Your task to perform on an android device: change the clock display to show seconds Image 0: 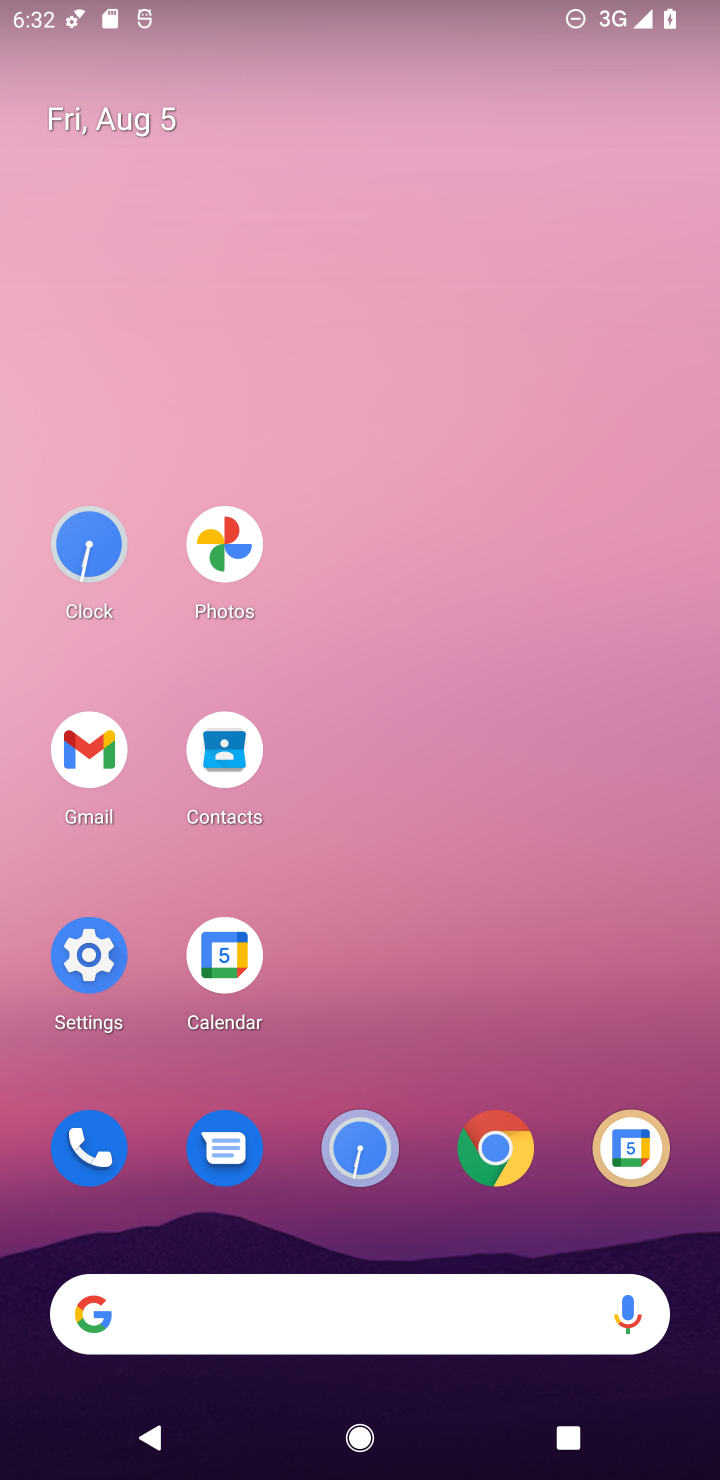
Step 0: click (371, 1133)
Your task to perform on an android device: change the clock display to show seconds Image 1: 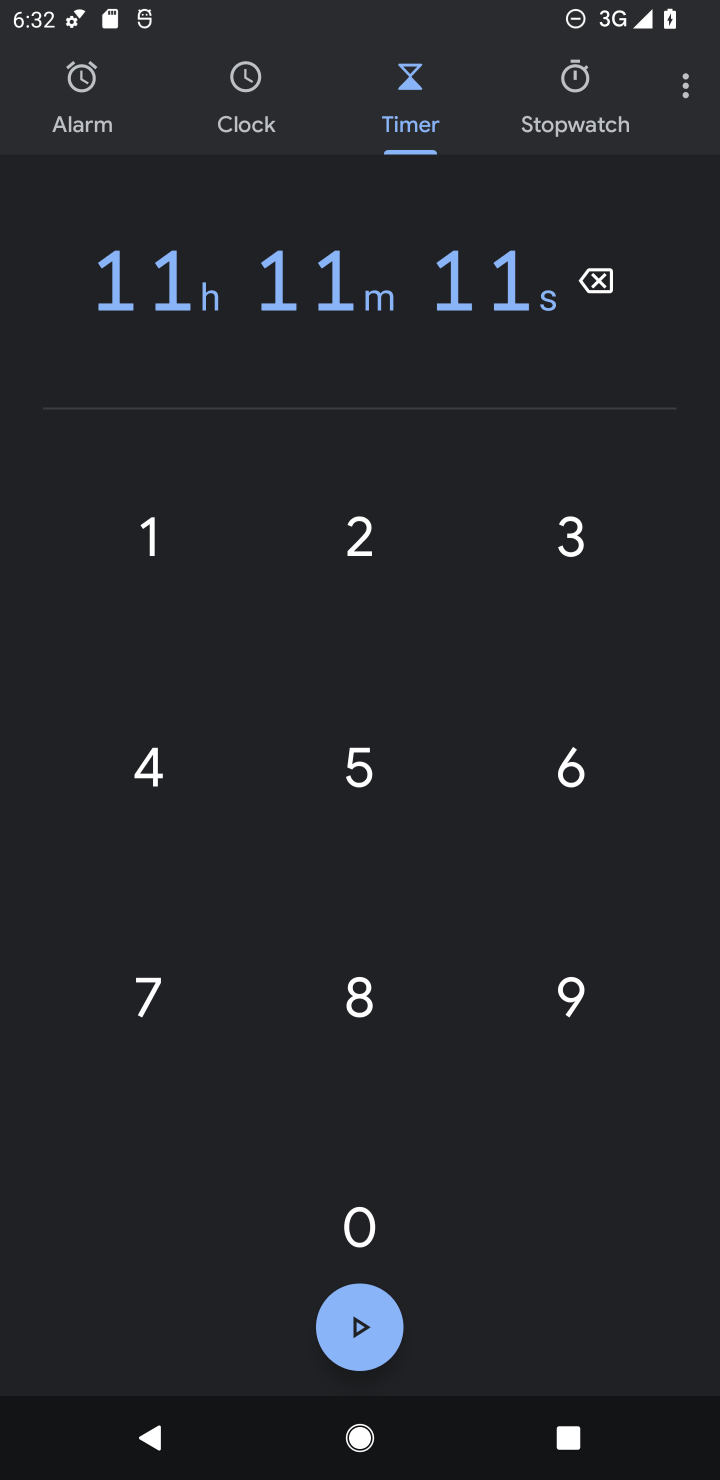
Step 1: click (672, 79)
Your task to perform on an android device: change the clock display to show seconds Image 2: 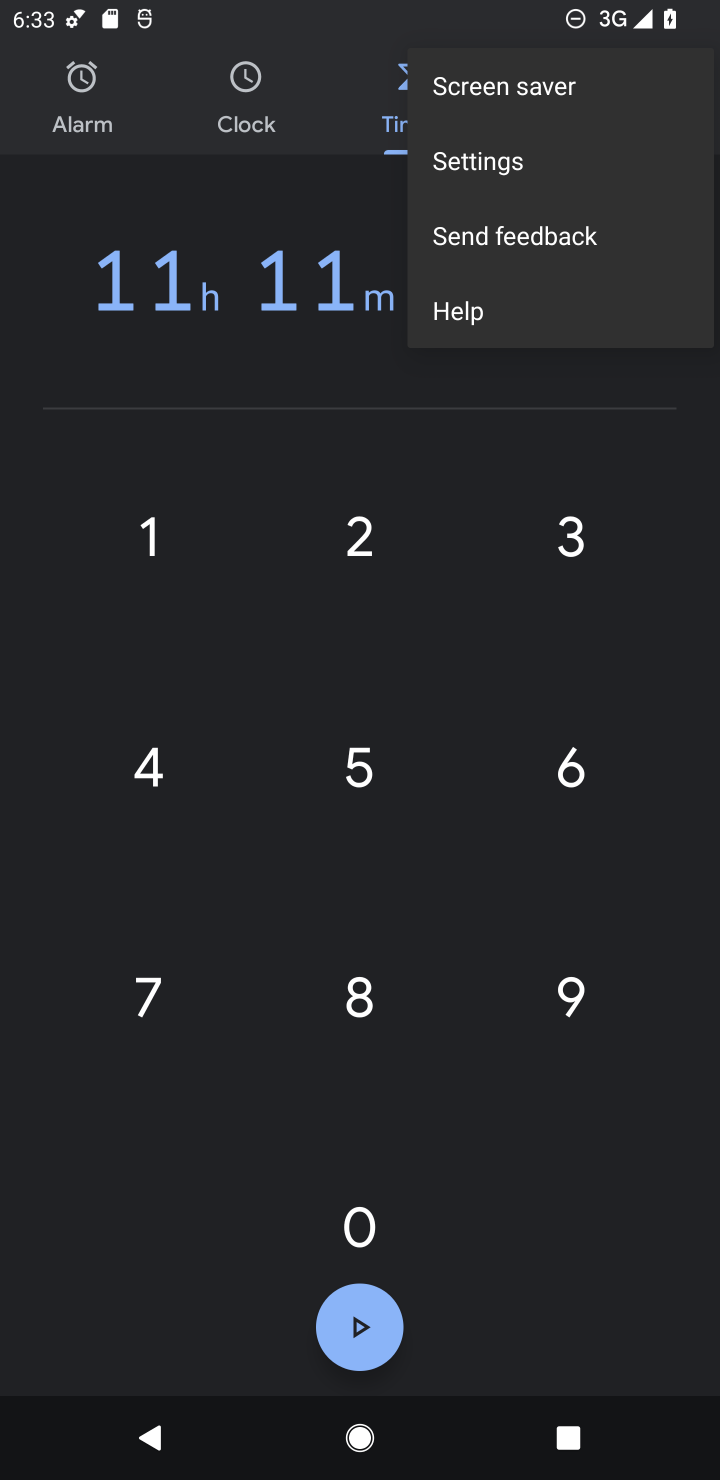
Step 2: click (488, 159)
Your task to perform on an android device: change the clock display to show seconds Image 3: 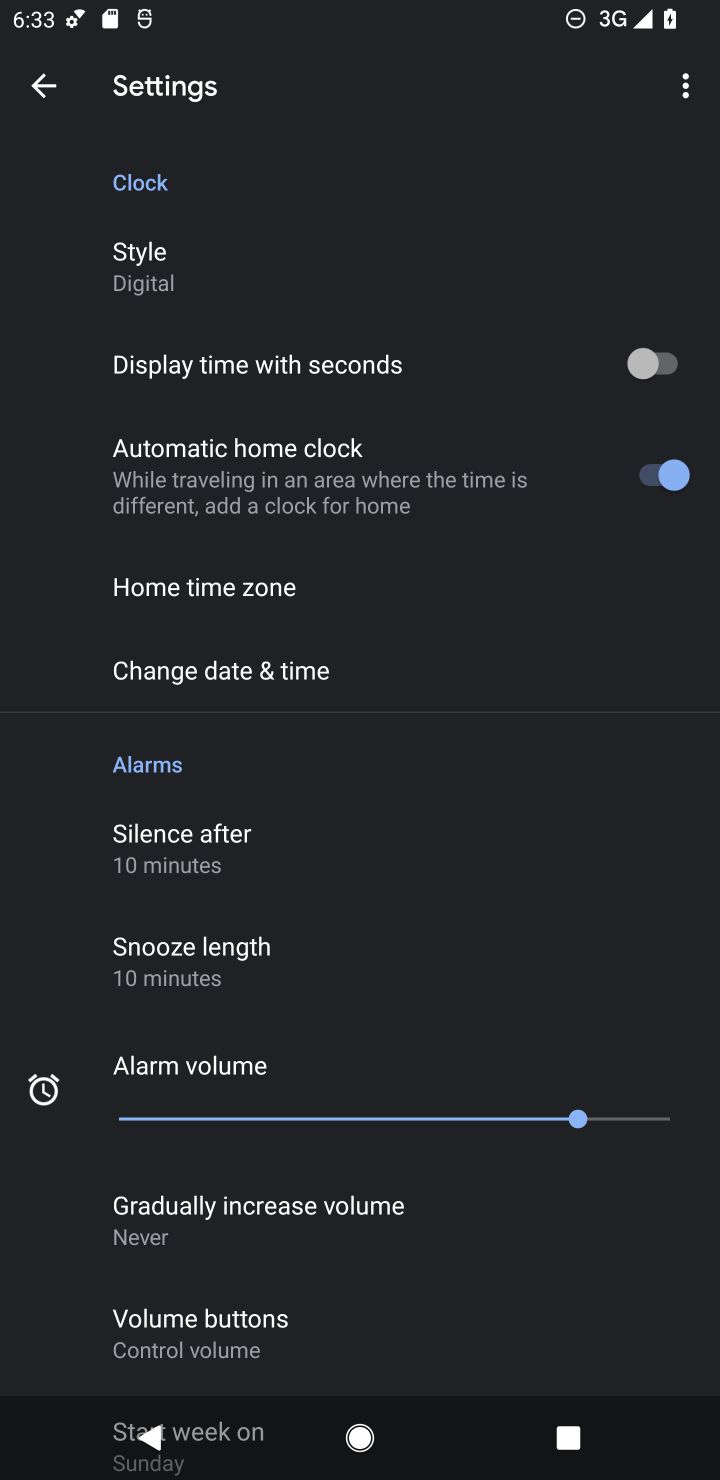
Step 3: click (648, 371)
Your task to perform on an android device: change the clock display to show seconds Image 4: 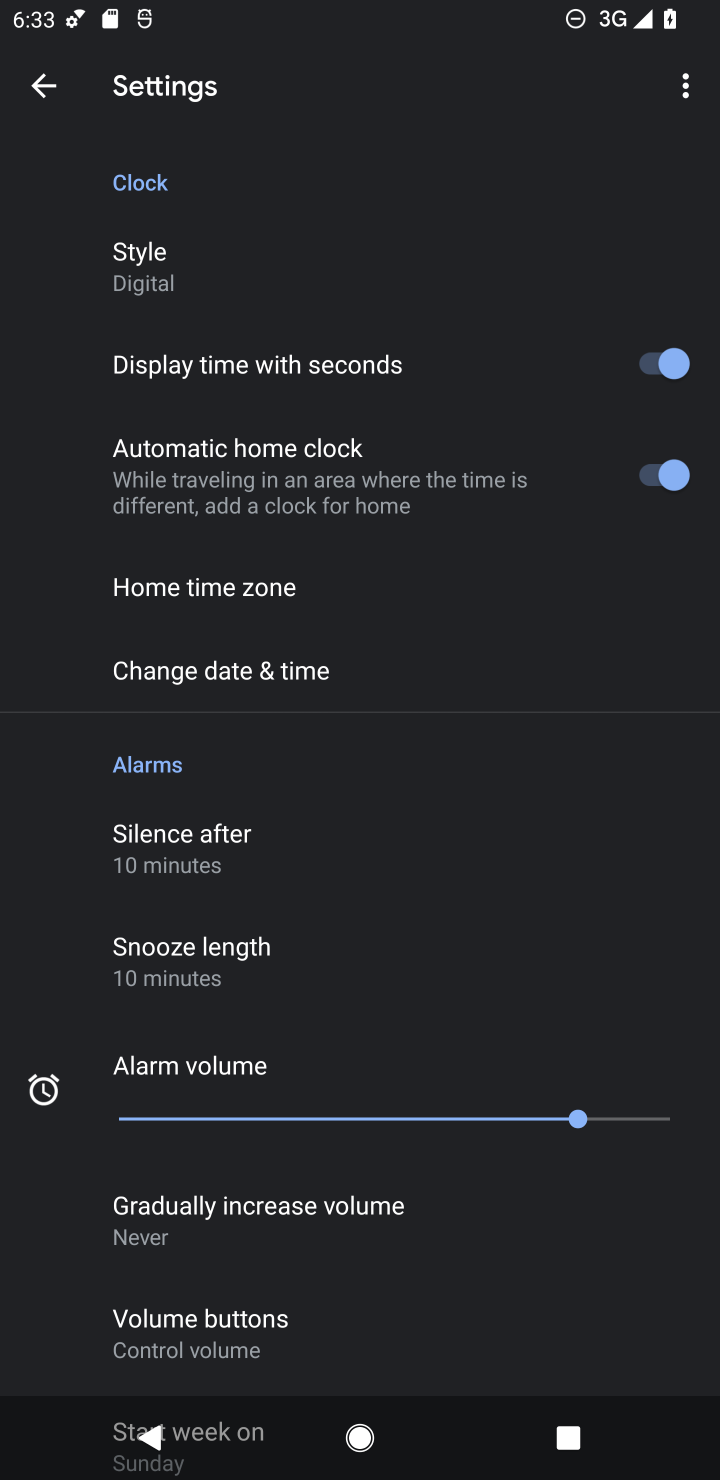
Step 4: task complete